Your task to perform on an android device: make emails show in primary in the gmail app Image 0: 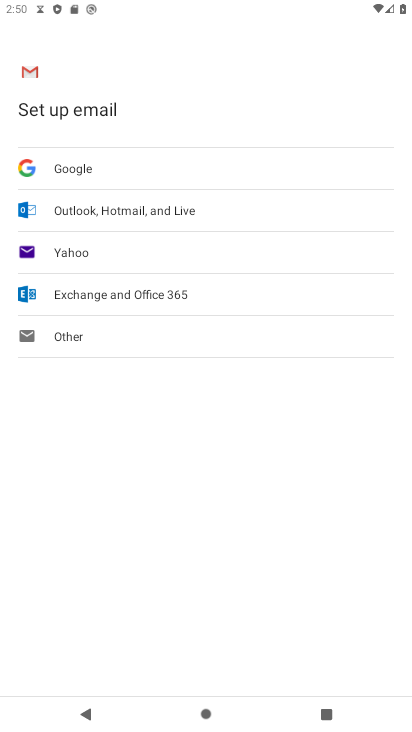
Step 0: press home button
Your task to perform on an android device: make emails show in primary in the gmail app Image 1: 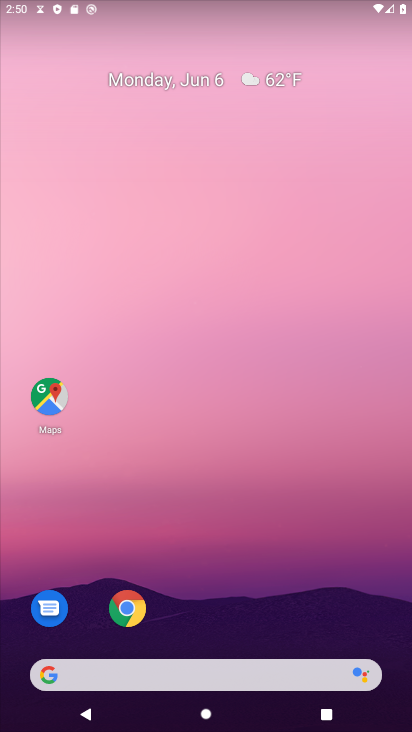
Step 1: drag from (204, 624) to (254, 20)
Your task to perform on an android device: make emails show in primary in the gmail app Image 2: 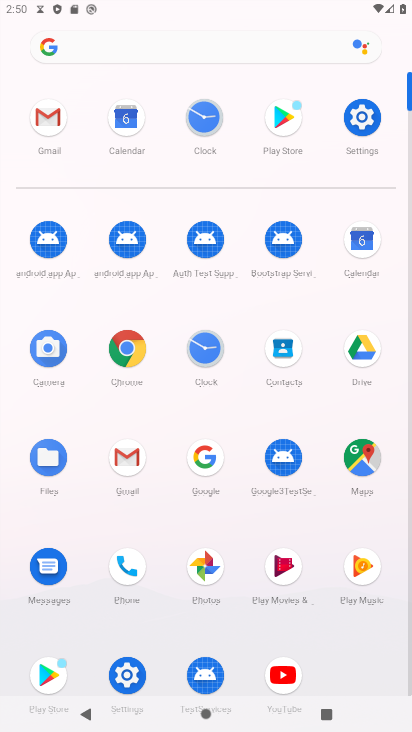
Step 2: click (38, 111)
Your task to perform on an android device: make emails show in primary in the gmail app Image 3: 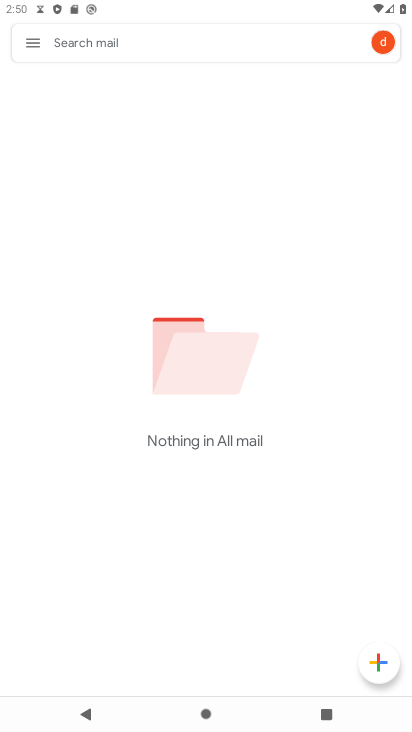
Step 3: click (27, 50)
Your task to perform on an android device: make emails show in primary in the gmail app Image 4: 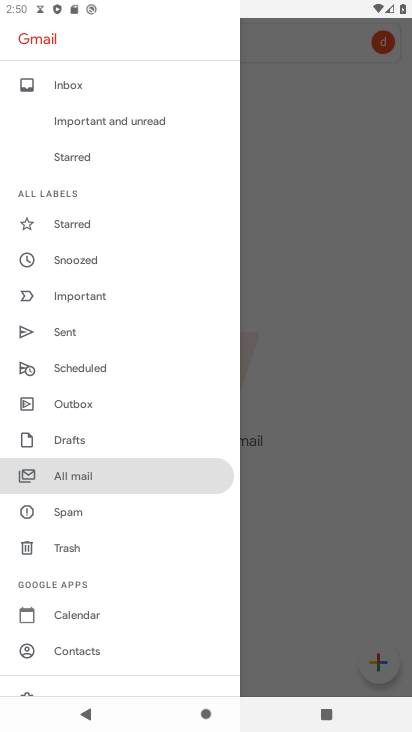
Step 4: drag from (74, 660) to (126, 149)
Your task to perform on an android device: make emails show in primary in the gmail app Image 5: 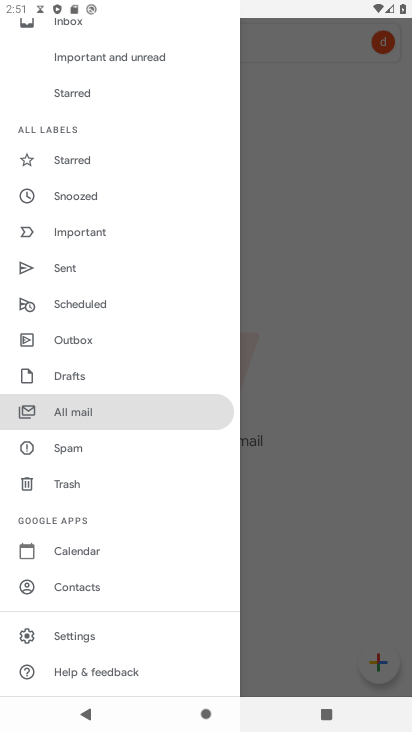
Step 5: click (85, 634)
Your task to perform on an android device: make emails show in primary in the gmail app Image 6: 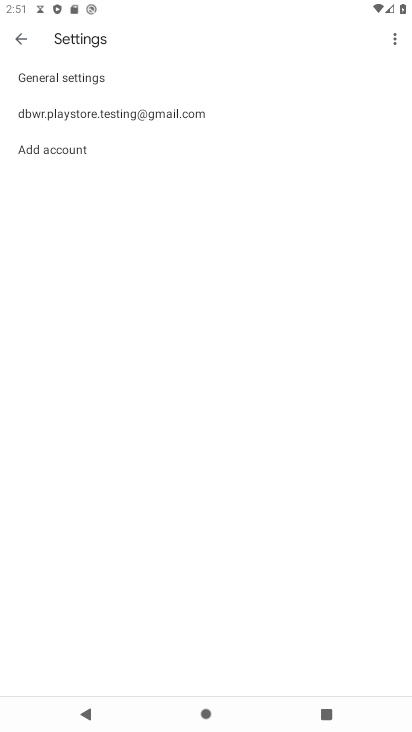
Step 6: click (234, 114)
Your task to perform on an android device: make emails show in primary in the gmail app Image 7: 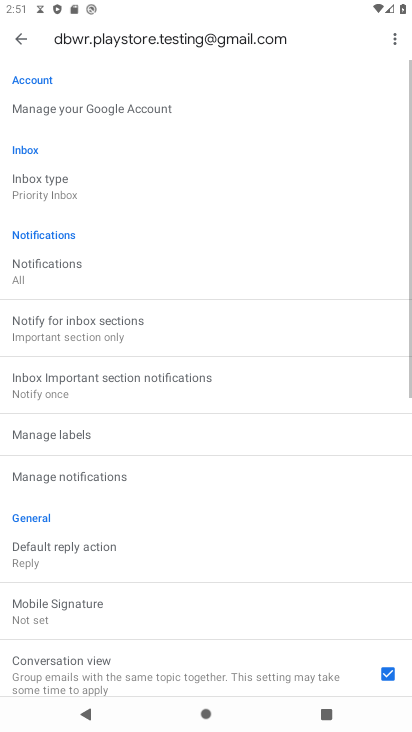
Step 7: click (56, 190)
Your task to perform on an android device: make emails show in primary in the gmail app Image 8: 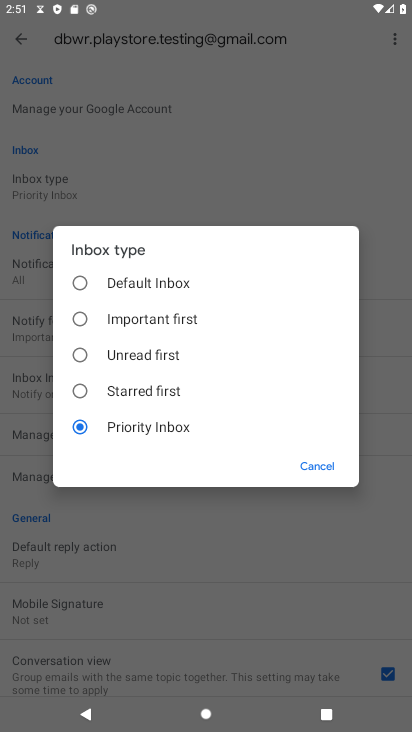
Step 8: click (132, 280)
Your task to perform on an android device: make emails show in primary in the gmail app Image 9: 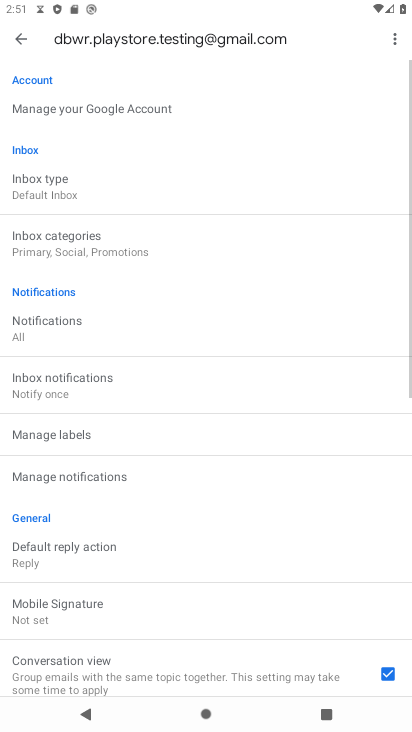
Step 9: task complete